Your task to perform on an android device: make emails show in primary in the gmail app Image 0: 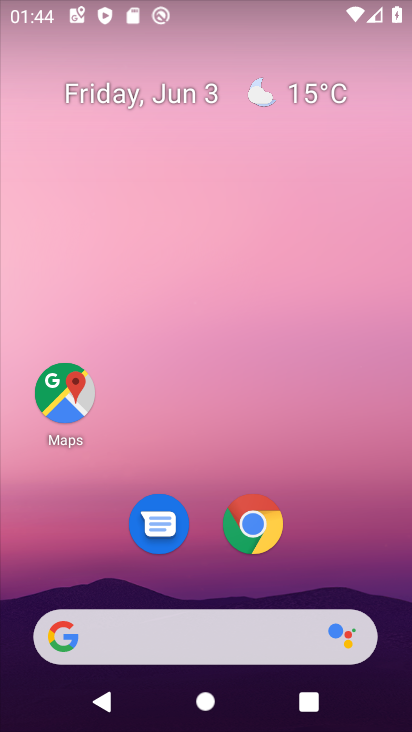
Step 0: drag from (222, 456) to (244, 2)
Your task to perform on an android device: make emails show in primary in the gmail app Image 1: 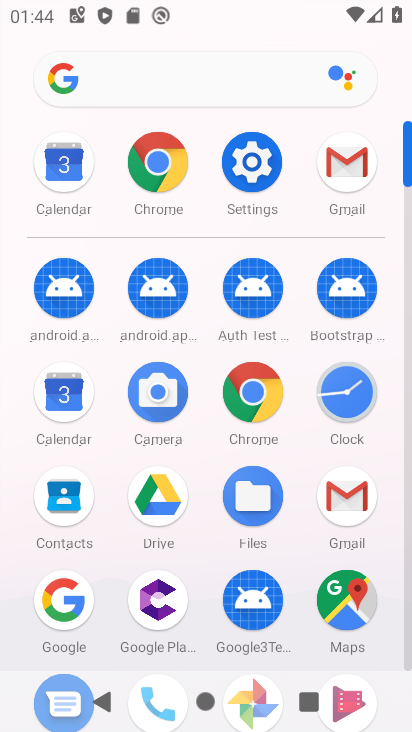
Step 1: click (339, 161)
Your task to perform on an android device: make emails show in primary in the gmail app Image 2: 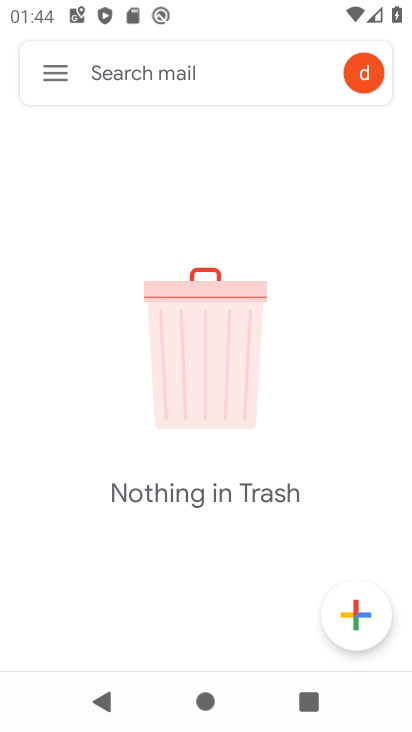
Step 2: click (47, 67)
Your task to perform on an android device: make emails show in primary in the gmail app Image 3: 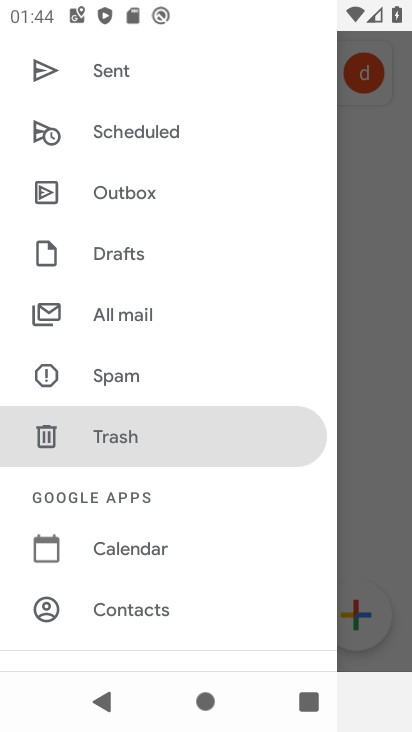
Step 3: drag from (188, 513) to (232, 78)
Your task to perform on an android device: make emails show in primary in the gmail app Image 4: 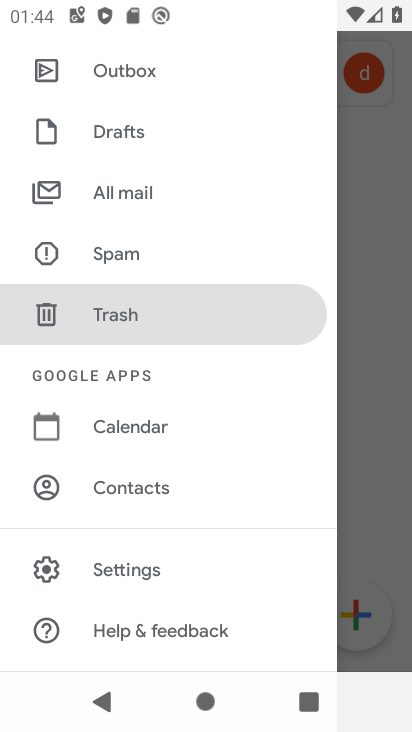
Step 4: click (161, 560)
Your task to perform on an android device: make emails show in primary in the gmail app Image 5: 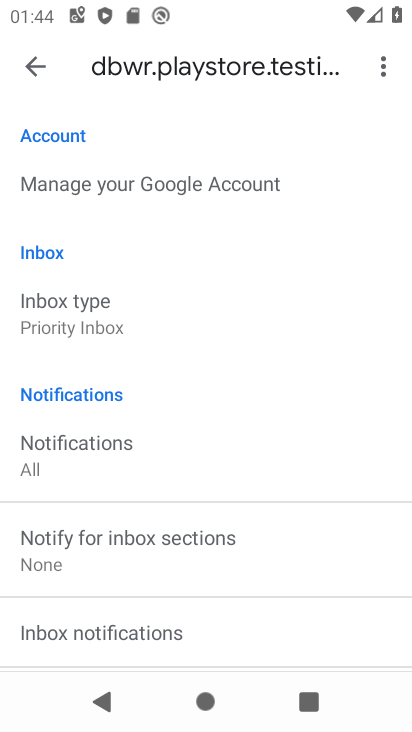
Step 5: click (127, 319)
Your task to perform on an android device: make emails show in primary in the gmail app Image 6: 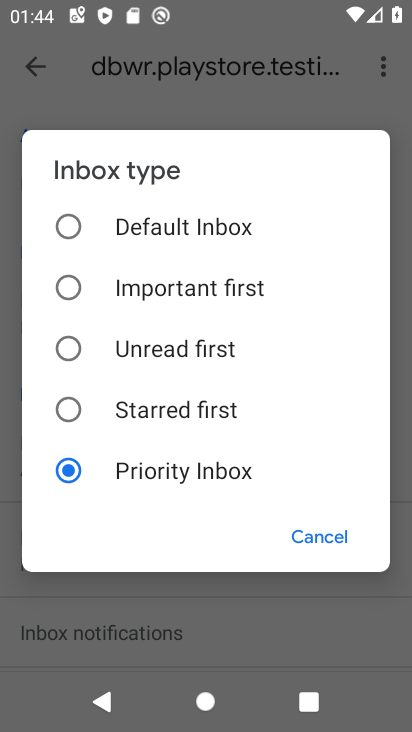
Step 6: click (77, 217)
Your task to perform on an android device: make emails show in primary in the gmail app Image 7: 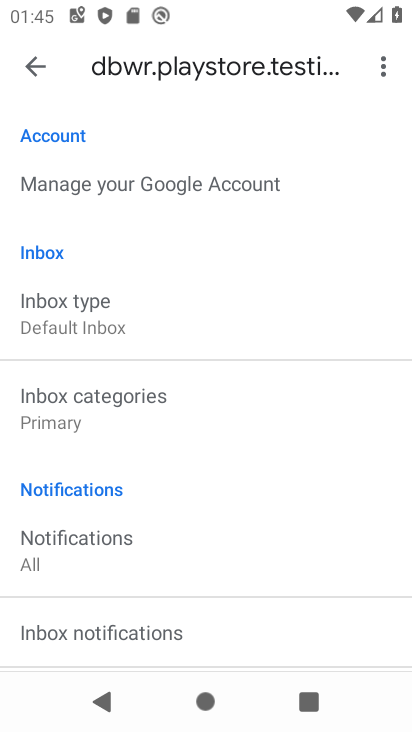
Step 7: task complete